Your task to perform on an android device: Search for the best gaming mouses on Amazon. Image 0: 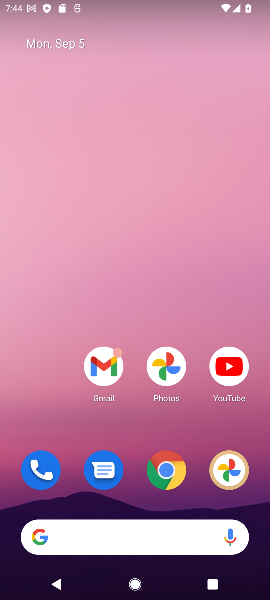
Step 0: drag from (186, 158) to (197, 133)
Your task to perform on an android device: Search for the best gaming mouses on Amazon. Image 1: 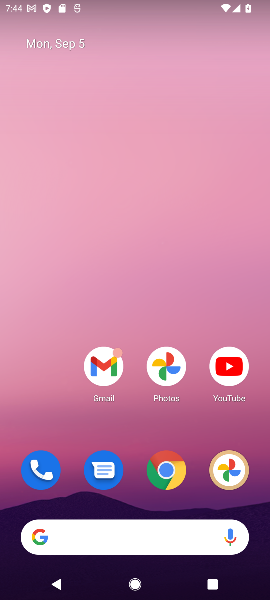
Step 1: drag from (144, 508) to (172, 42)
Your task to perform on an android device: Search for the best gaming mouses on Amazon. Image 2: 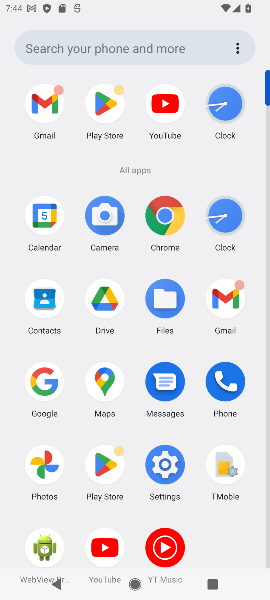
Step 2: click (164, 222)
Your task to perform on an android device: Search for the best gaming mouses on Amazon. Image 3: 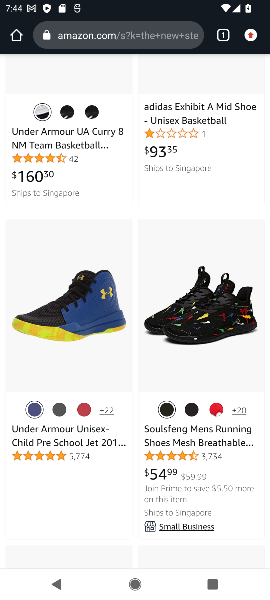
Step 3: click (168, 44)
Your task to perform on an android device: Search for the best gaming mouses on Amazon. Image 4: 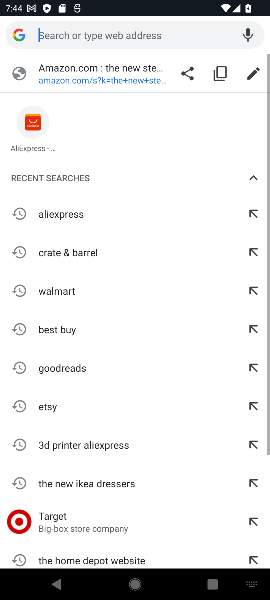
Step 4: click (116, 62)
Your task to perform on an android device: Search for the best gaming mouses on Amazon. Image 5: 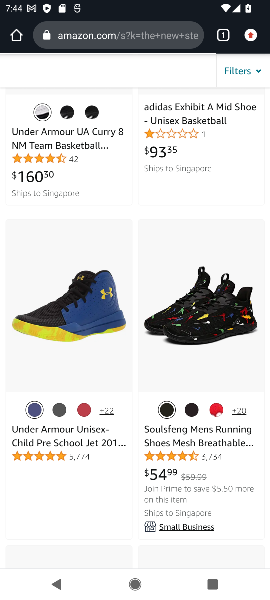
Step 5: drag from (111, 71) to (111, 394)
Your task to perform on an android device: Search for the best gaming mouses on Amazon. Image 6: 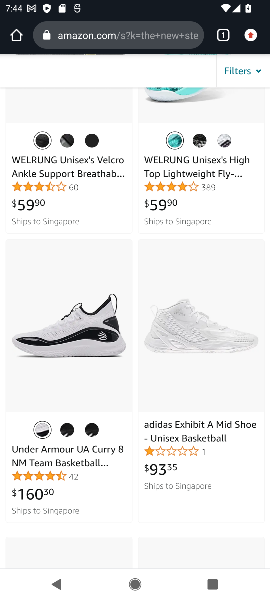
Step 6: drag from (130, 156) to (123, 504)
Your task to perform on an android device: Search for the best gaming mouses on Amazon. Image 7: 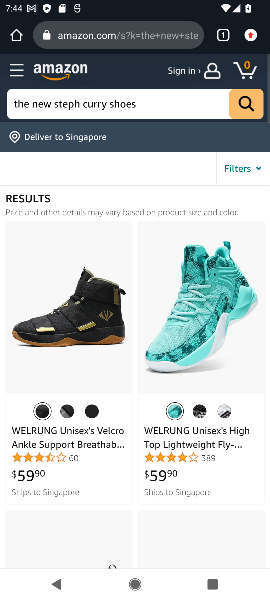
Step 7: drag from (142, 159) to (140, 277)
Your task to perform on an android device: Search for the best gaming mouses on Amazon. Image 8: 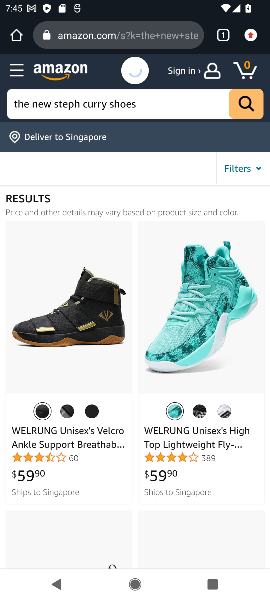
Step 8: click (206, 103)
Your task to perform on an android device: Search for the best gaming mouses on Amazon. Image 9: 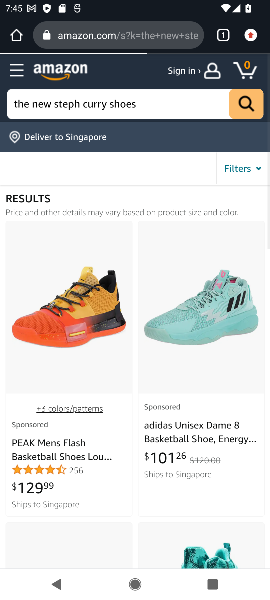
Step 9: click (199, 100)
Your task to perform on an android device: Search for the best gaming mouses on Amazon. Image 10: 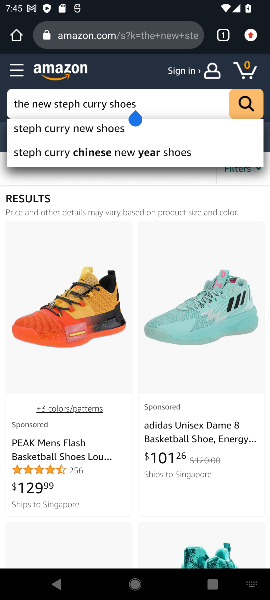
Step 10: click (243, 102)
Your task to perform on an android device: Search for the best gaming mouses on Amazon. Image 11: 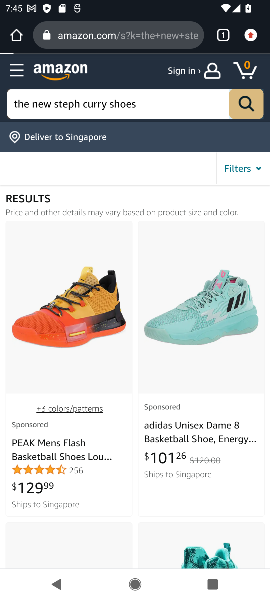
Step 11: click (200, 100)
Your task to perform on an android device: Search for the best gaming mouses on Amazon. Image 12: 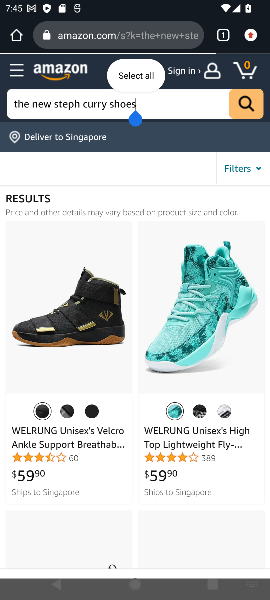
Step 12: click (42, 96)
Your task to perform on an android device: Search for the best gaming mouses on Amazon. Image 13: 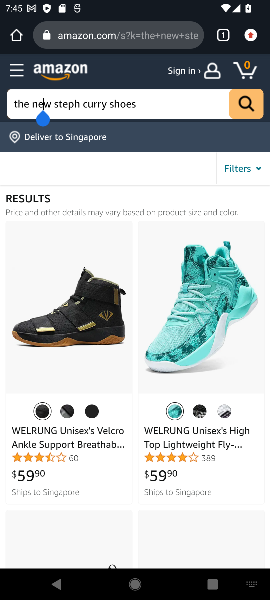
Step 13: click (42, 95)
Your task to perform on an android device: Search for the best gaming mouses on Amazon. Image 14: 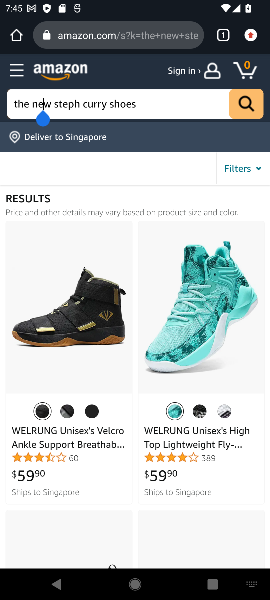
Step 14: click (43, 95)
Your task to perform on an android device: Search for the best gaming mouses on Amazon. Image 15: 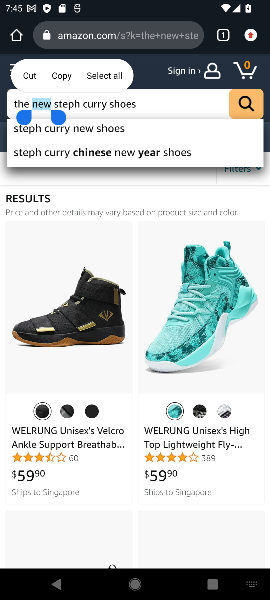
Step 15: click (97, 78)
Your task to perform on an android device: Search for the best gaming mouses on Amazon. Image 16: 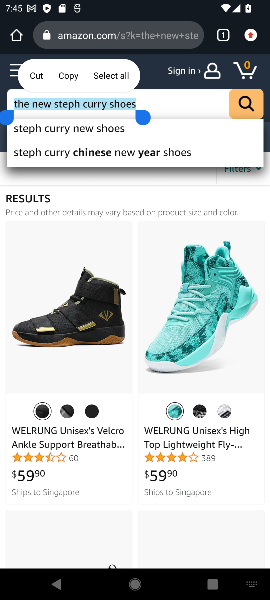
Step 16: click (40, 75)
Your task to perform on an android device: Search for the best gaming mouses on Amazon. Image 17: 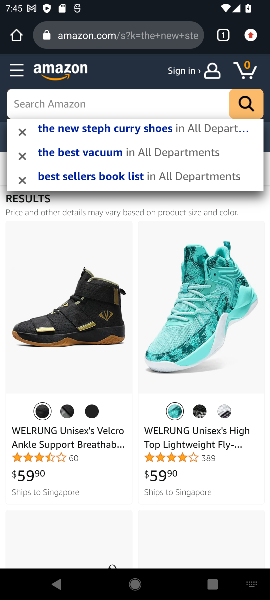
Step 17: type "he best gaming mouses"
Your task to perform on an android device: Search for the best gaming mouses on Amazon. Image 18: 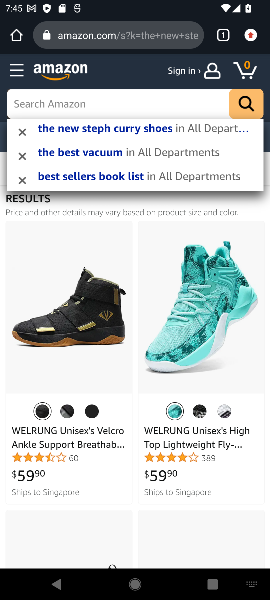
Step 18: type ""
Your task to perform on an android device: Search for the best gaming mouses on Amazon. Image 19: 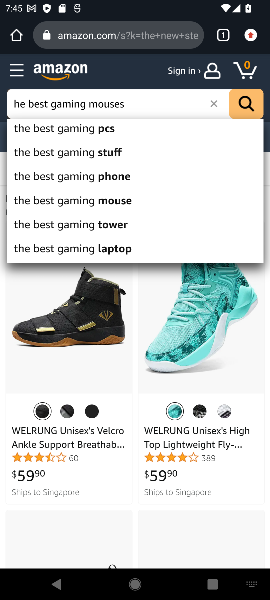
Step 19: click (256, 99)
Your task to perform on an android device: Search for the best gaming mouses on Amazon. Image 20: 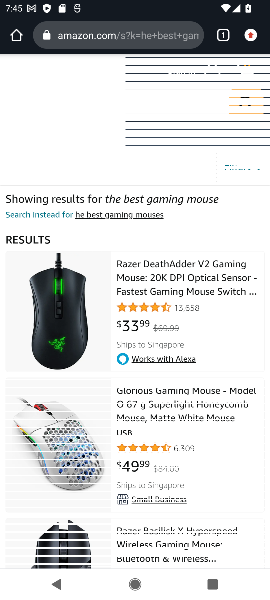
Step 20: task complete